Your task to perform on an android device: make emails show in primary in the gmail app Image 0: 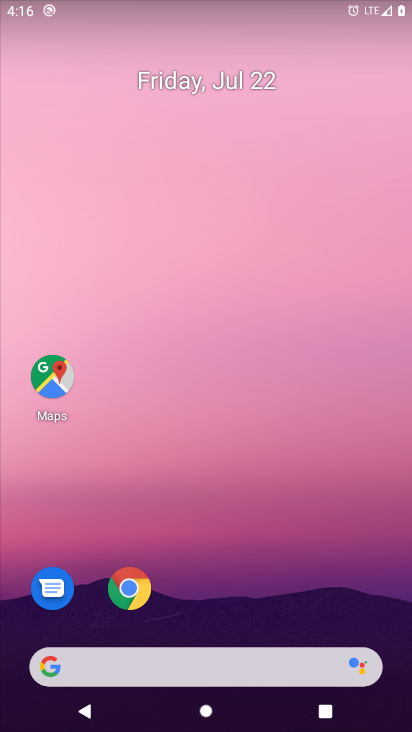
Step 0: drag from (324, 582) to (328, 56)
Your task to perform on an android device: make emails show in primary in the gmail app Image 1: 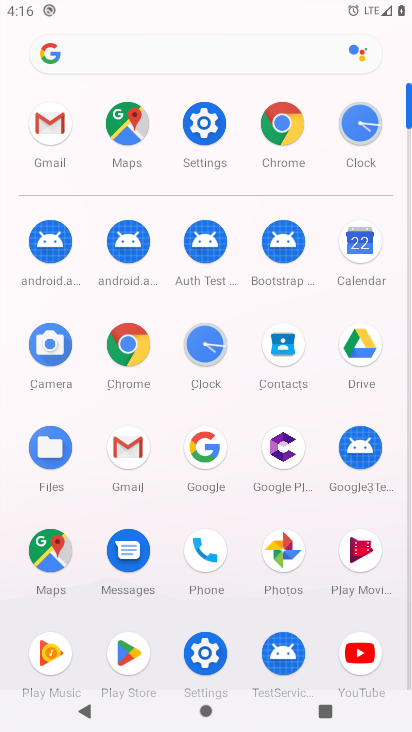
Step 1: click (33, 123)
Your task to perform on an android device: make emails show in primary in the gmail app Image 2: 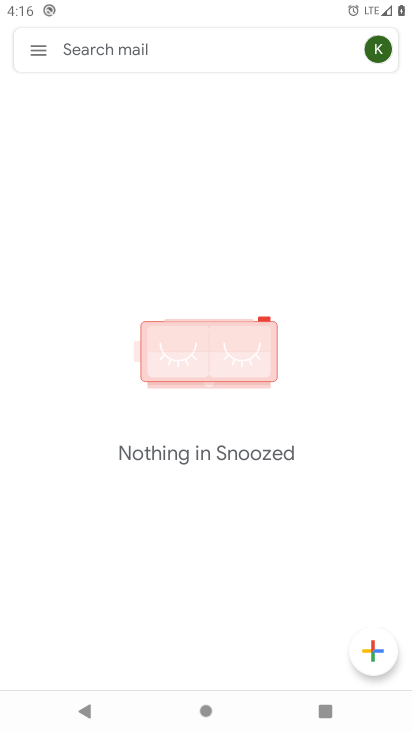
Step 2: click (37, 55)
Your task to perform on an android device: make emails show in primary in the gmail app Image 3: 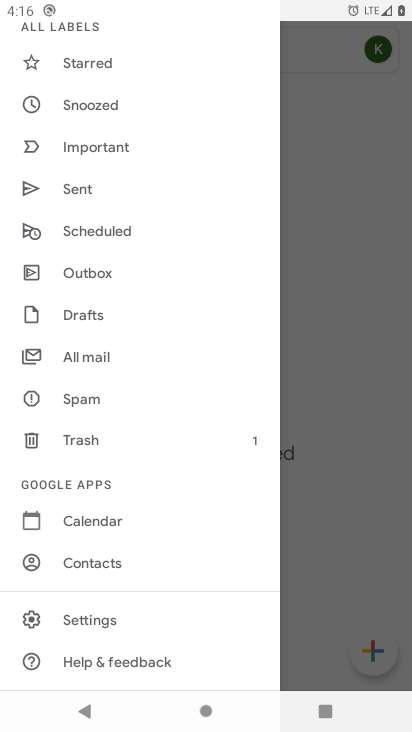
Step 3: drag from (117, 93) to (123, 525)
Your task to perform on an android device: make emails show in primary in the gmail app Image 4: 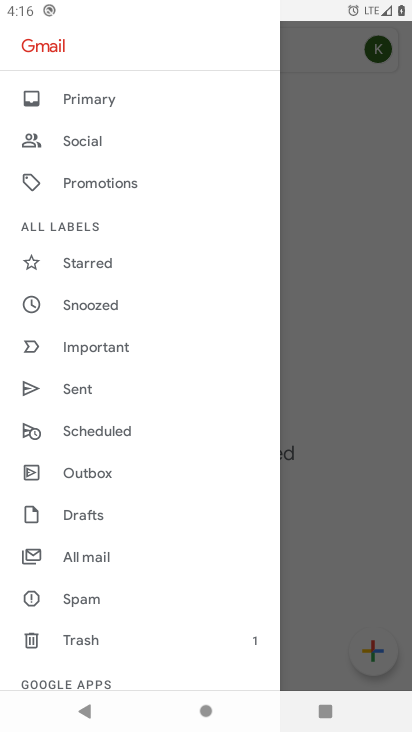
Step 4: click (85, 95)
Your task to perform on an android device: make emails show in primary in the gmail app Image 5: 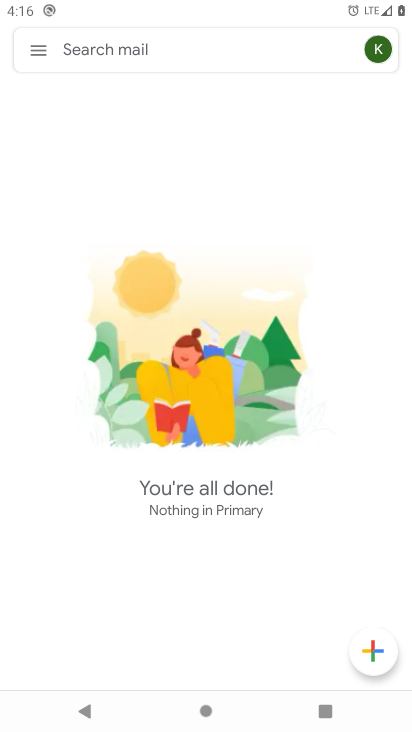
Step 5: task complete